Your task to perform on an android device: What's the weather going to be tomorrow? Image 0: 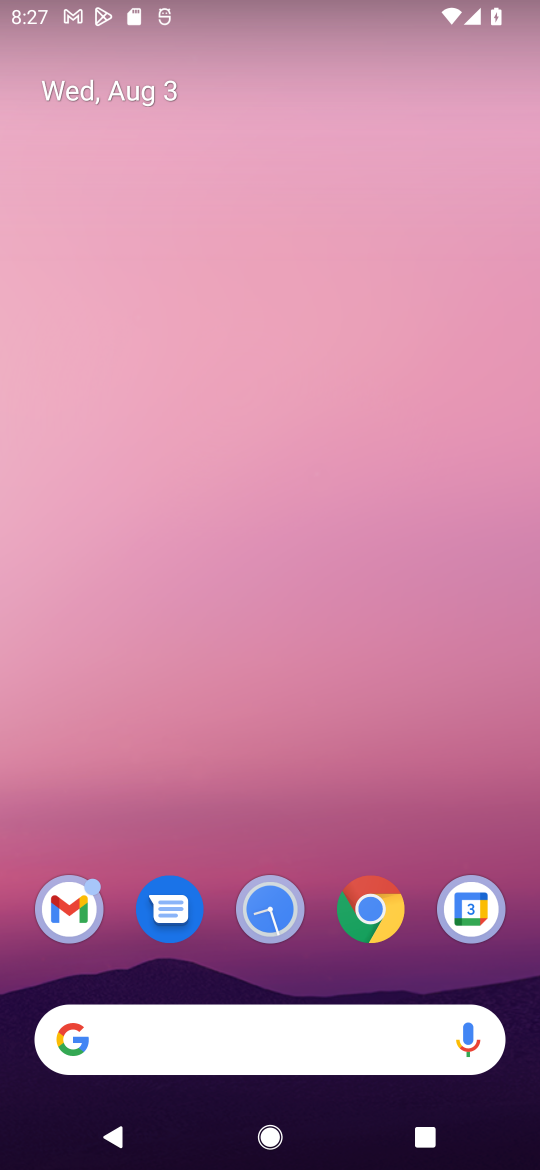
Step 0: press home button
Your task to perform on an android device: What's the weather going to be tomorrow? Image 1: 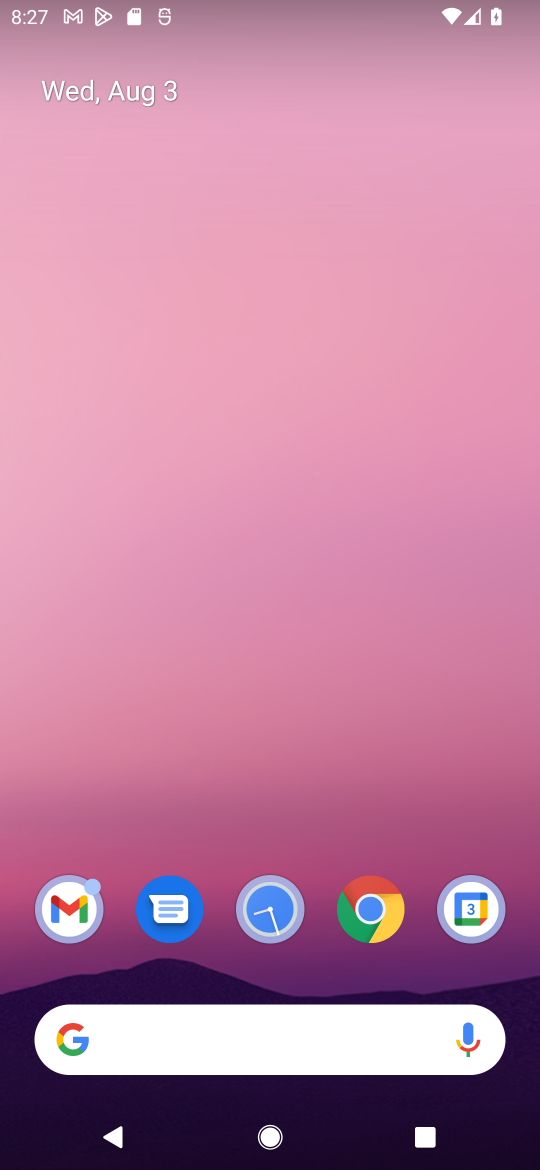
Step 1: click (262, 1040)
Your task to perform on an android device: What's the weather going to be tomorrow? Image 2: 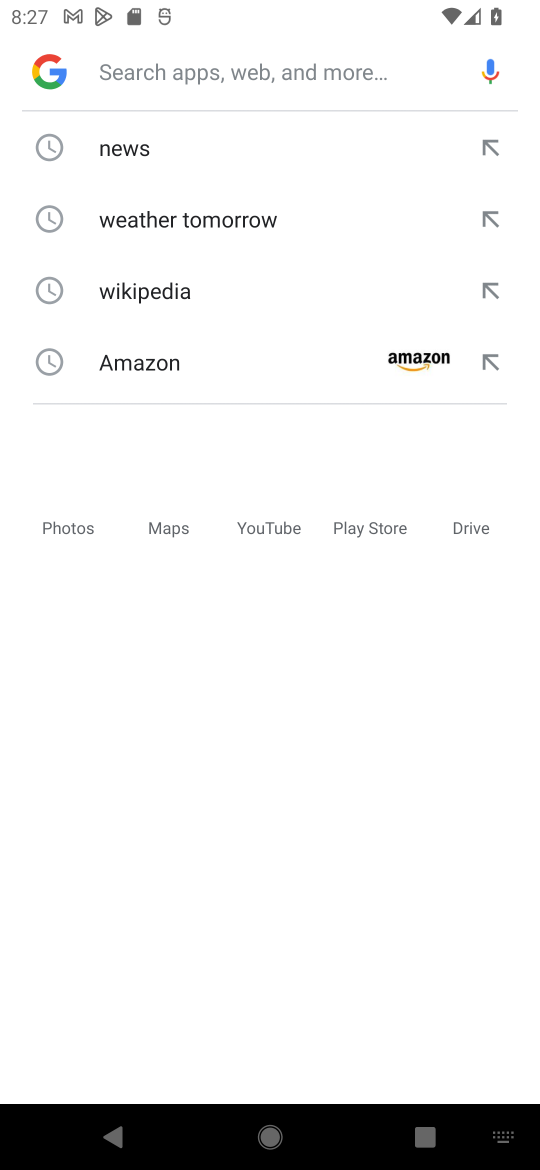
Step 2: click (256, 218)
Your task to perform on an android device: What's the weather going to be tomorrow? Image 3: 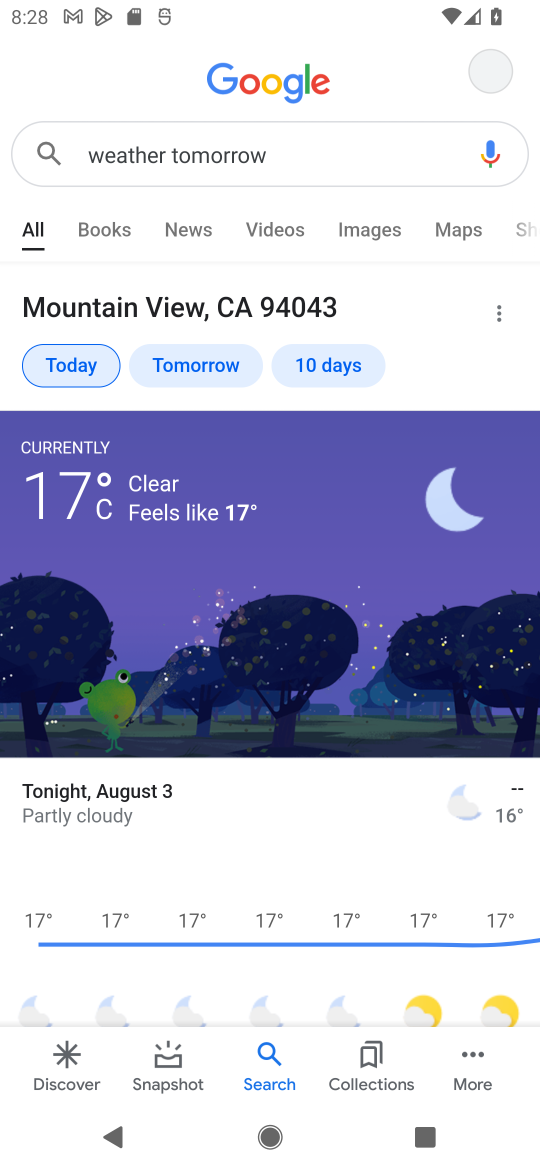
Step 3: click (205, 365)
Your task to perform on an android device: What's the weather going to be tomorrow? Image 4: 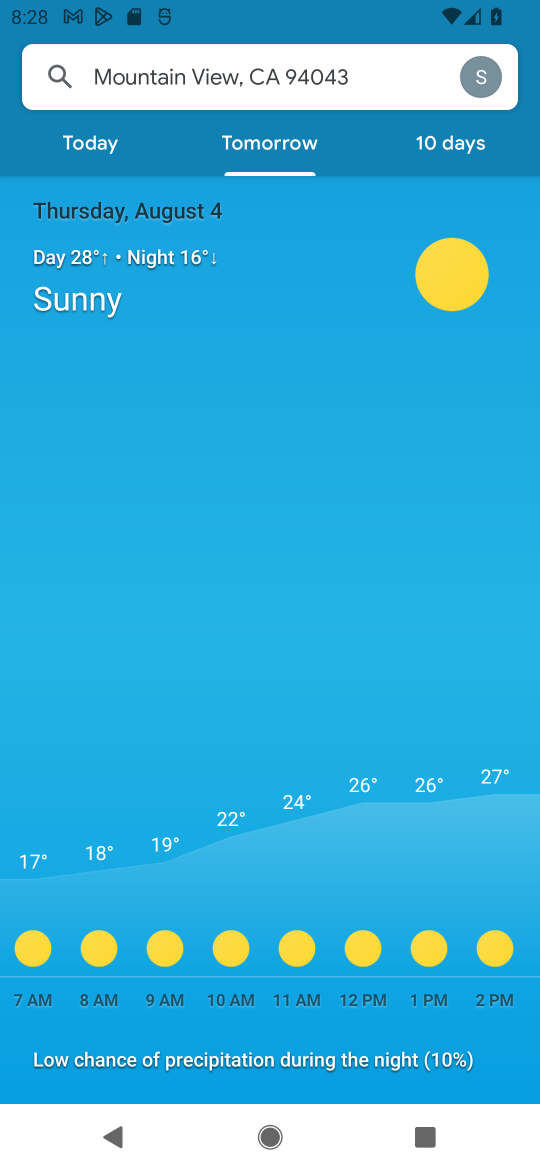
Step 4: task complete